Your task to perform on an android device: Open Chrome and go to settings Image 0: 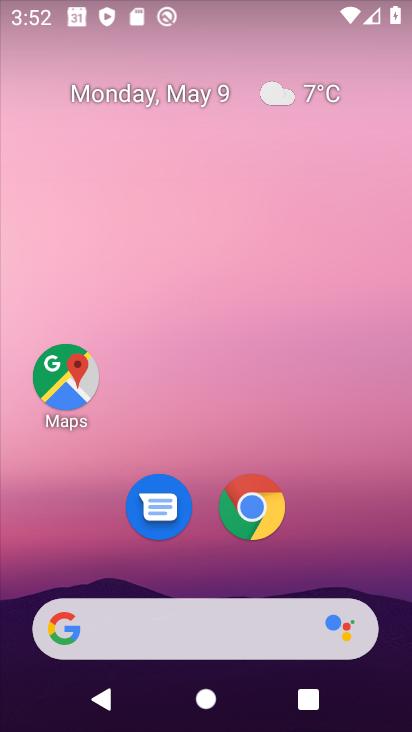
Step 0: drag from (230, 671) to (239, 145)
Your task to perform on an android device: Open Chrome and go to settings Image 1: 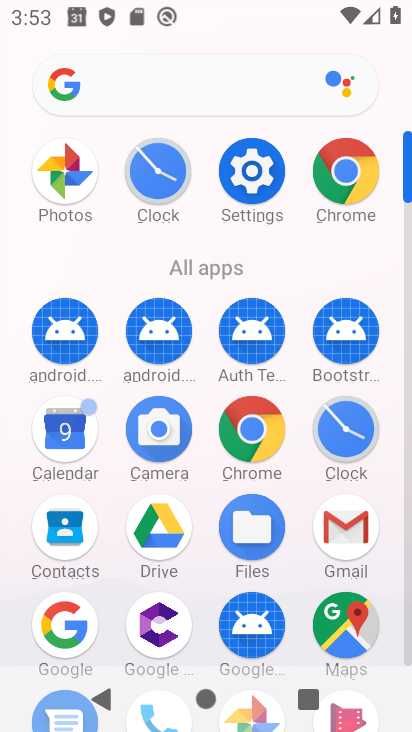
Step 1: click (344, 178)
Your task to perform on an android device: Open Chrome and go to settings Image 2: 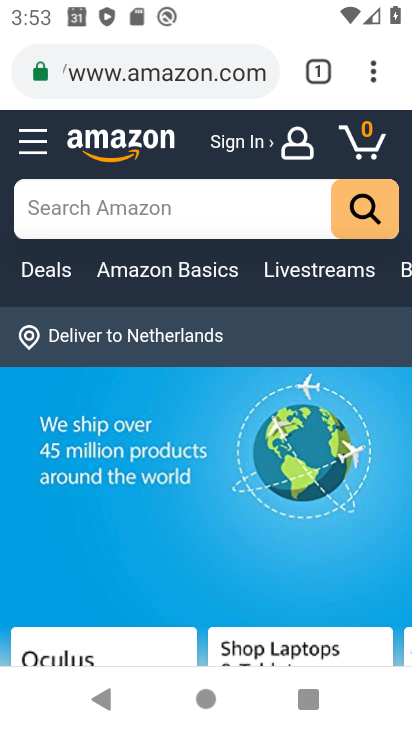
Step 2: click (383, 83)
Your task to perform on an android device: Open Chrome and go to settings Image 3: 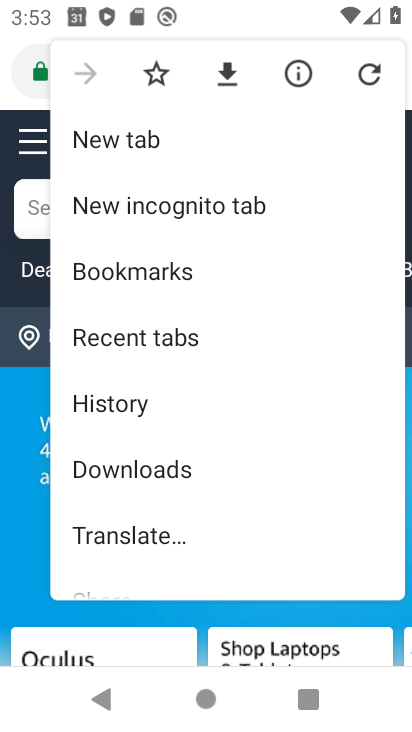
Step 3: drag from (118, 563) to (252, 140)
Your task to perform on an android device: Open Chrome and go to settings Image 4: 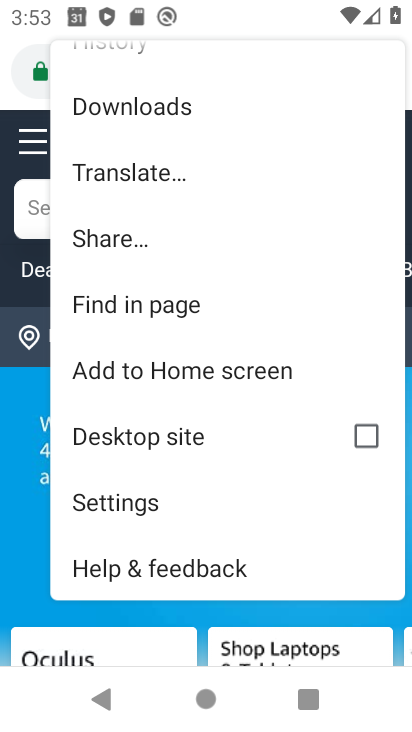
Step 4: click (111, 501)
Your task to perform on an android device: Open Chrome and go to settings Image 5: 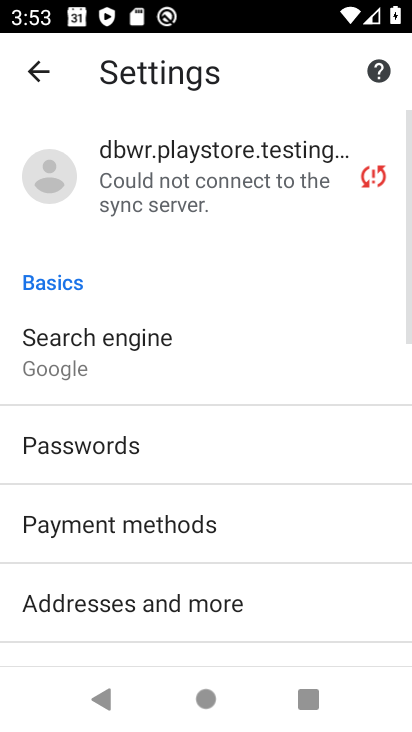
Step 5: task complete